Your task to perform on an android device: See recent photos Image 0: 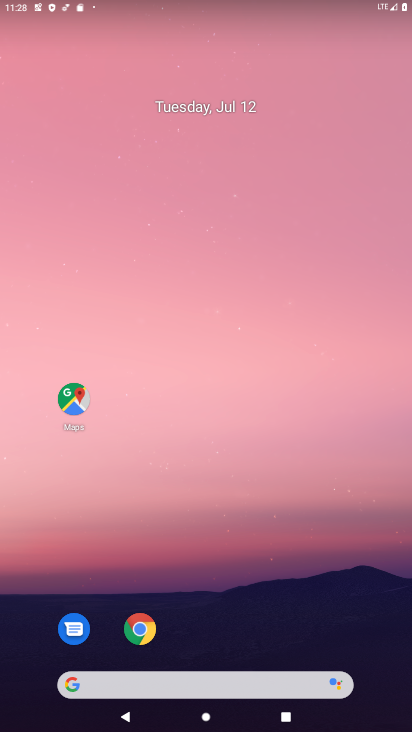
Step 0: press home button
Your task to perform on an android device: See recent photos Image 1: 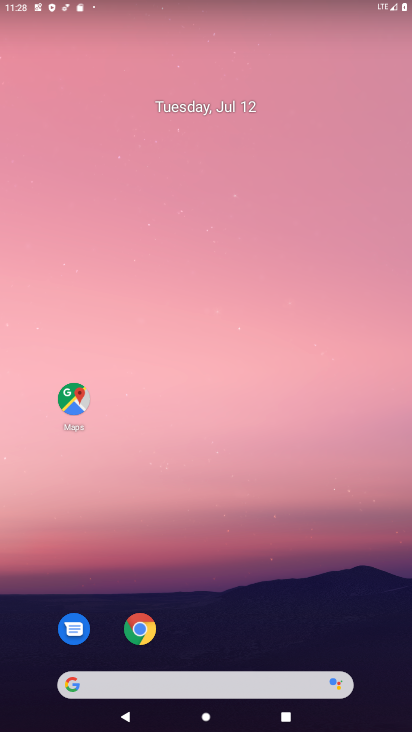
Step 1: drag from (217, 656) to (241, 41)
Your task to perform on an android device: See recent photos Image 2: 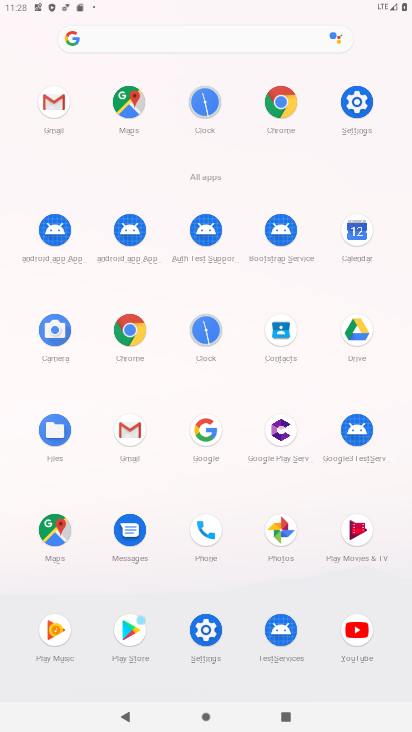
Step 2: click (280, 528)
Your task to perform on an android device: See recent photos Image 3: 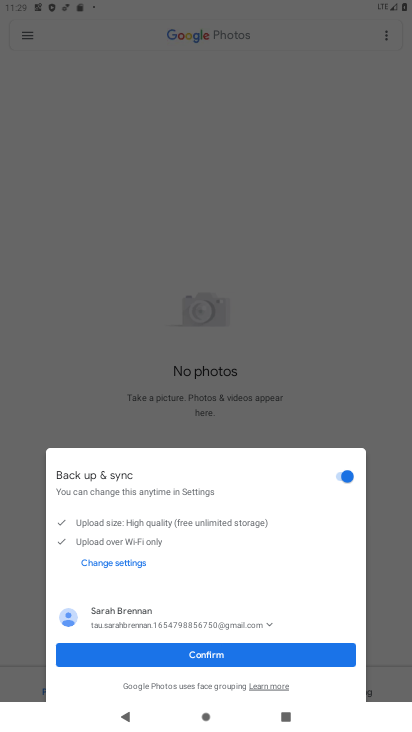
Step 3: click (212, 655)
Your task to perform on an android device: See recent photos Image 4: 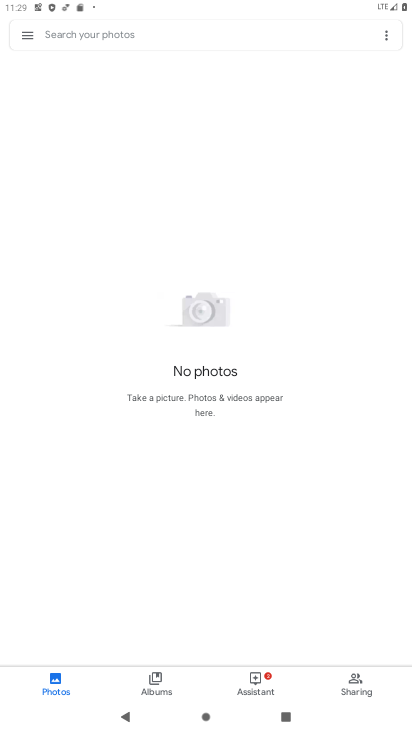
Step 4: task complete